Your task to perform on an android device: Search for vegetarian restaurants on Maps Image 0: 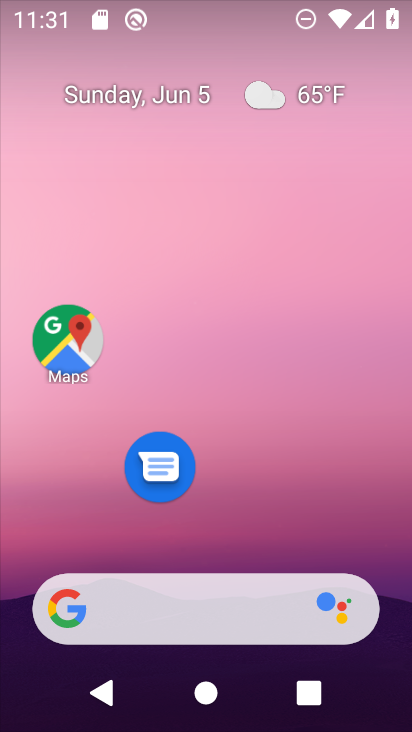
Step 0: click (176, 296)
Your task to perform on an android device: Search for vegetarian restaurants on Maps Image 1: 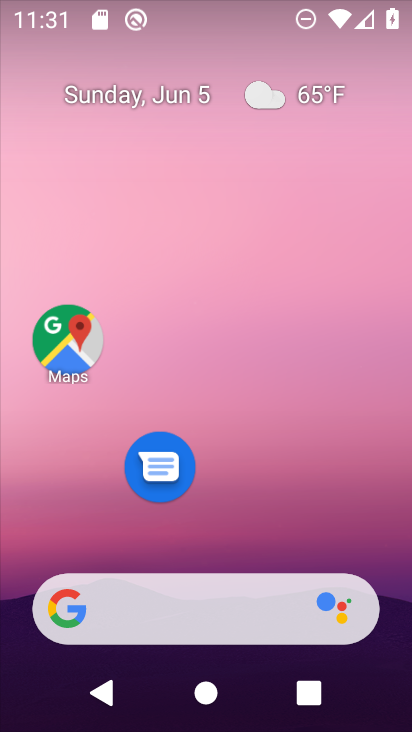
Step 1: drag from (279, 407) to (325, 66)
Your task to perform on an android device: Search for vegetarian restaurants on Maps Image 2: 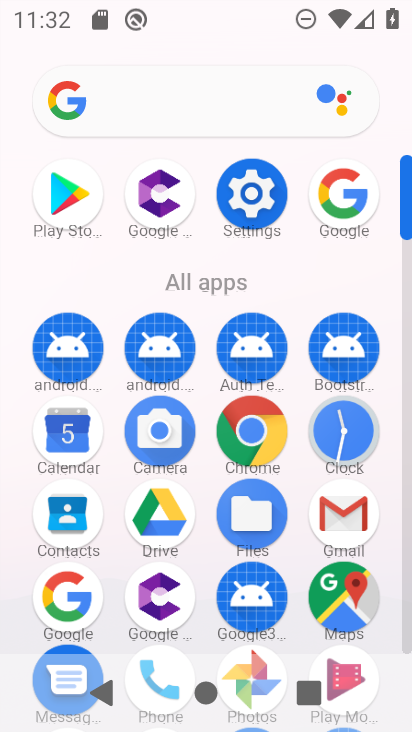
Step 2: click (331, 605)
Your task to perform on an android device: Search for vegetarian restaurants on Maps Image 3: 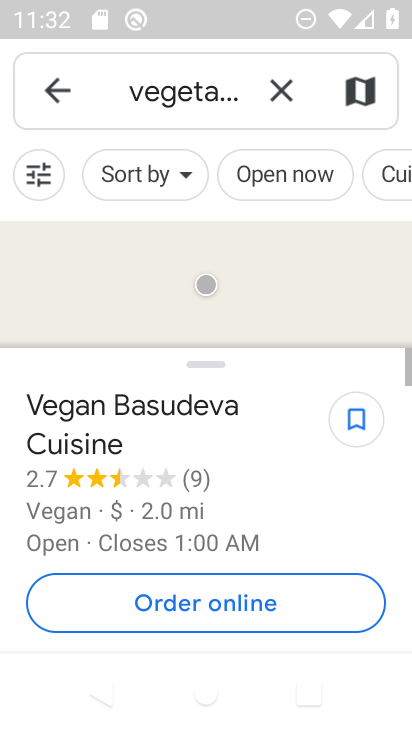
Step 3: click (283, 97)
Your task to perform on an android device: Search for vegetarian restaurants on Maps Image 4: 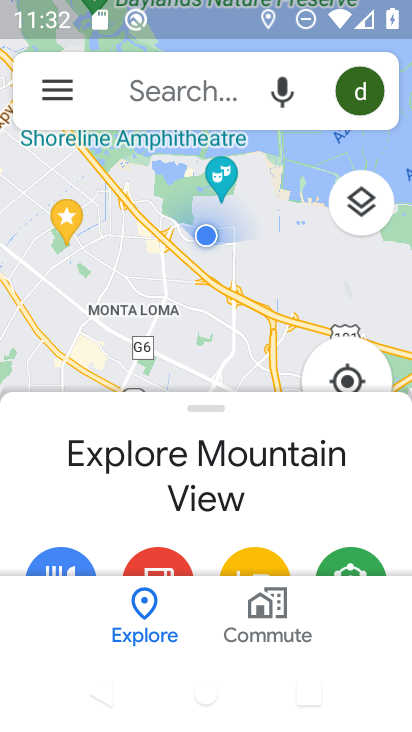
Step 4: click (172, 98)
Your task to perform on an android device: Search for vegetarian restaurants on Maps Image 5: 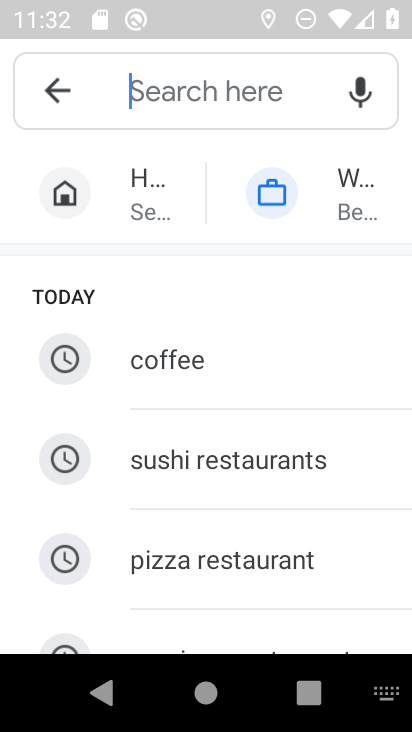
Step 5: type " vegetarian restaurant"
Your task to perform on an android device: Search for vegetarian restaurants on Maps Image 6: 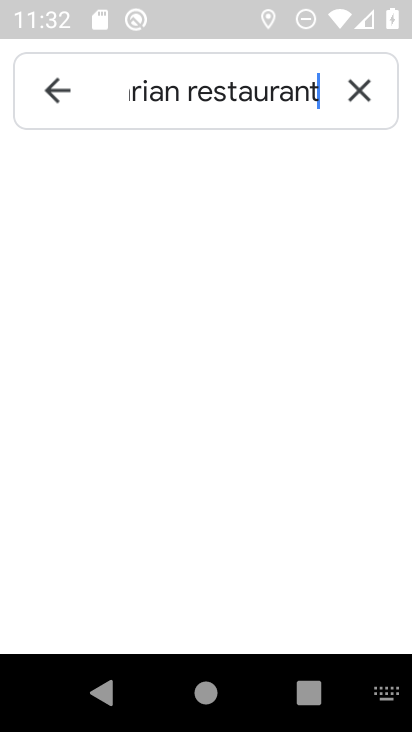
Step 6: type ""
Your task to perform on an android device: Search for vegetarian restaurants on Maps Image 7: 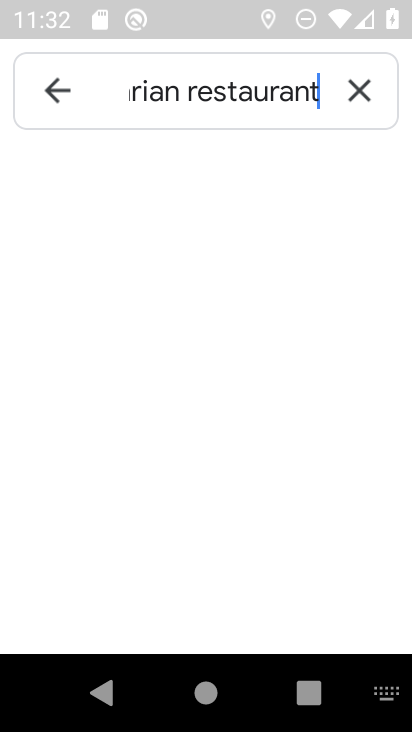
Step 7: click (229, 168)
Your task to perform on an android device: Search for vegetarian restaurants on Maps Image 8: 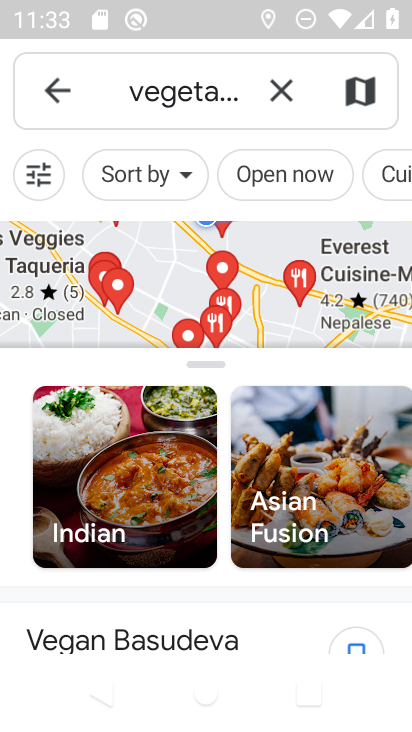
Step 8: task complete